Your task to perform on an android device: toggle translation in the chrome app Image 0: 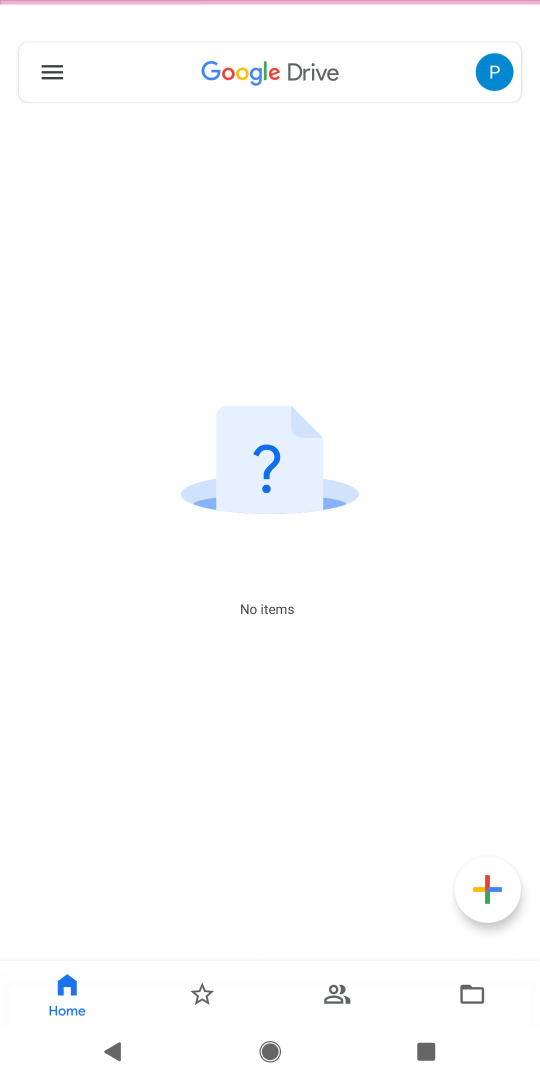
Step 0: press home button
Your task to perform on an android device: toggle translation in the chrome app Image 1: 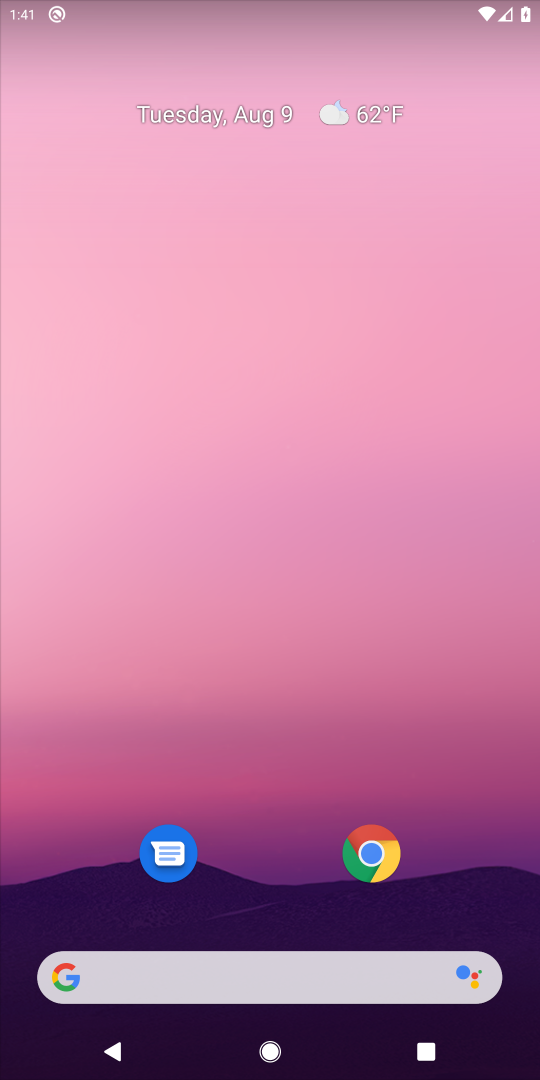
Step 1: click (374, 845)
Your task to perform on an android device: toggle translation in the chrome app Image 2: 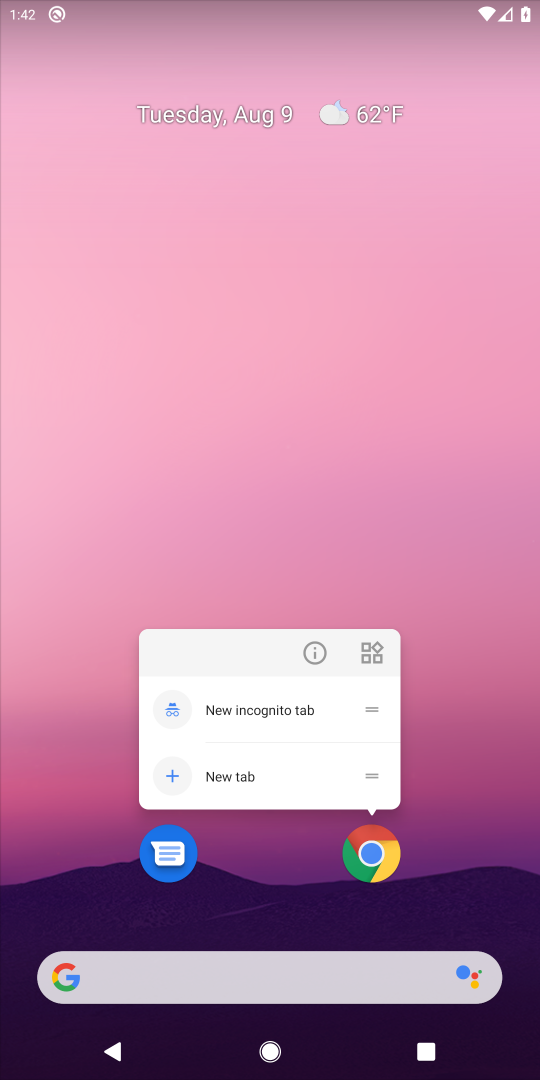
Step 2: click (374, 847)
Your task to perform on an android device: toggle translation in the chrome app Image 3: 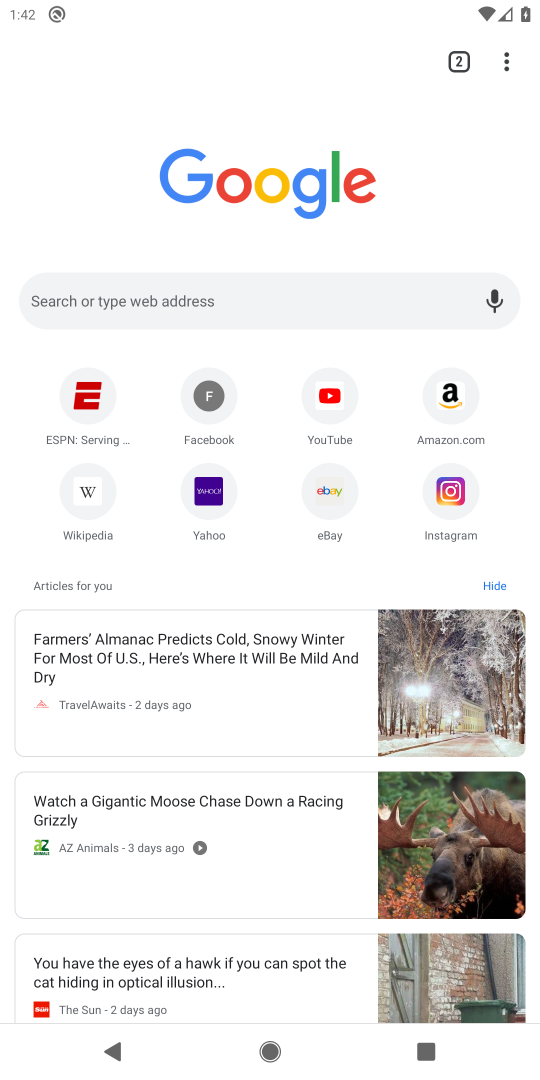
Step 3: drag from (501, 59) to (295, 586)
Your task to perform on an android device: toggle translation in the chrome app Image 4: 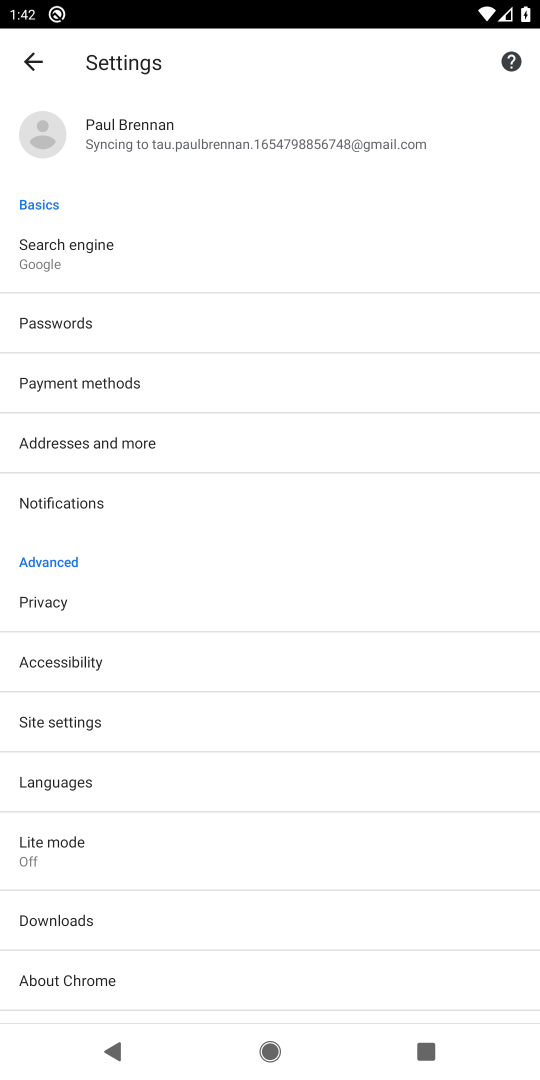
Step 4: click (62, 774)
Your task to perform on an android device: toggle translation in the chrome app Image 5: 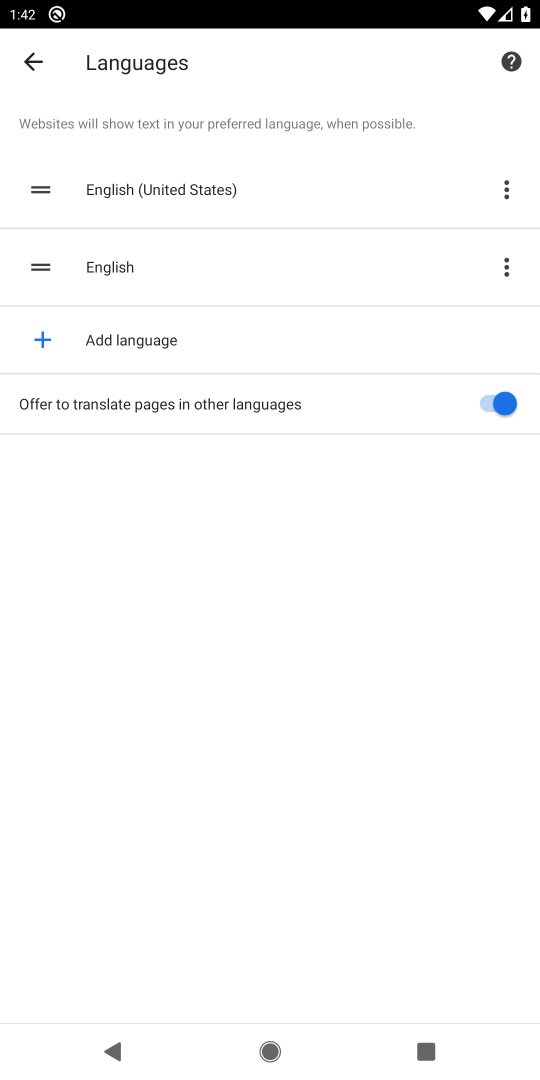
Step 5: click (507, 395)
Your task to perform on an android device: toggle translation in the chrome app Image 6: 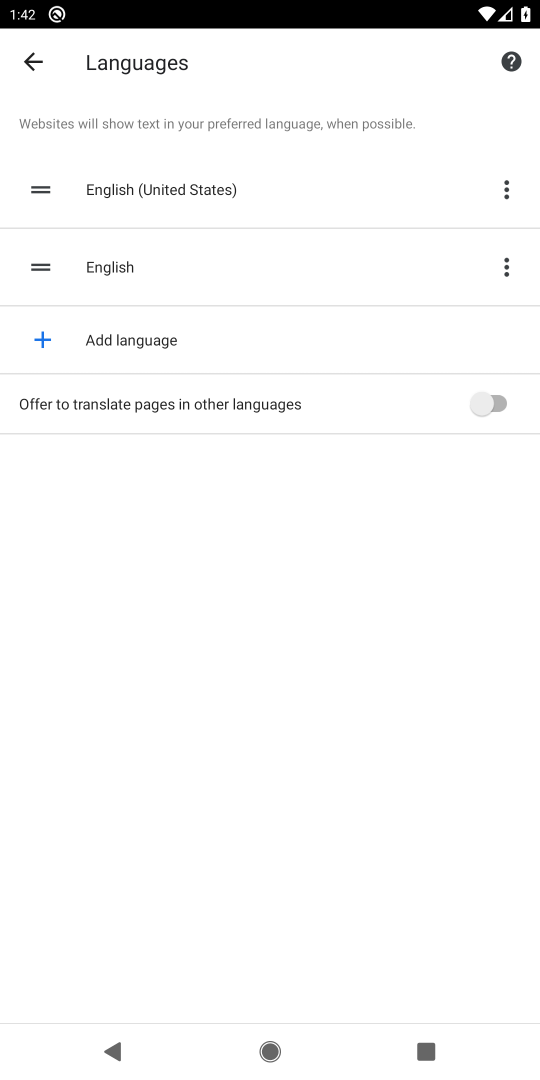
Step 6: task complete